Your task to perform on an android device: Go to wifi settings Image 0: 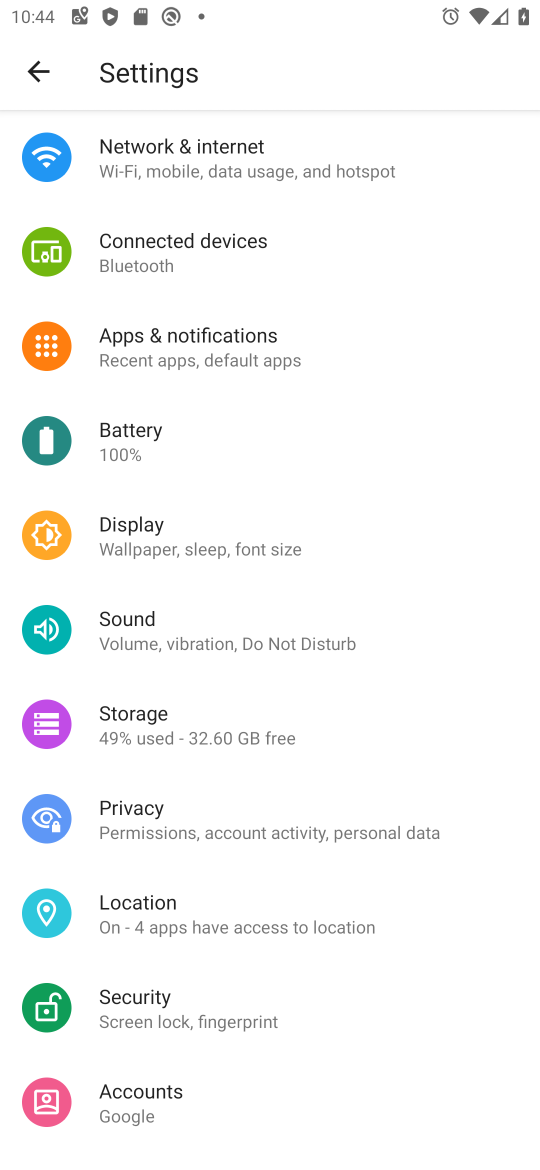
Step 0: click (165, 145)
Your task to perform on an android device: Go to wifi settings Image 1: 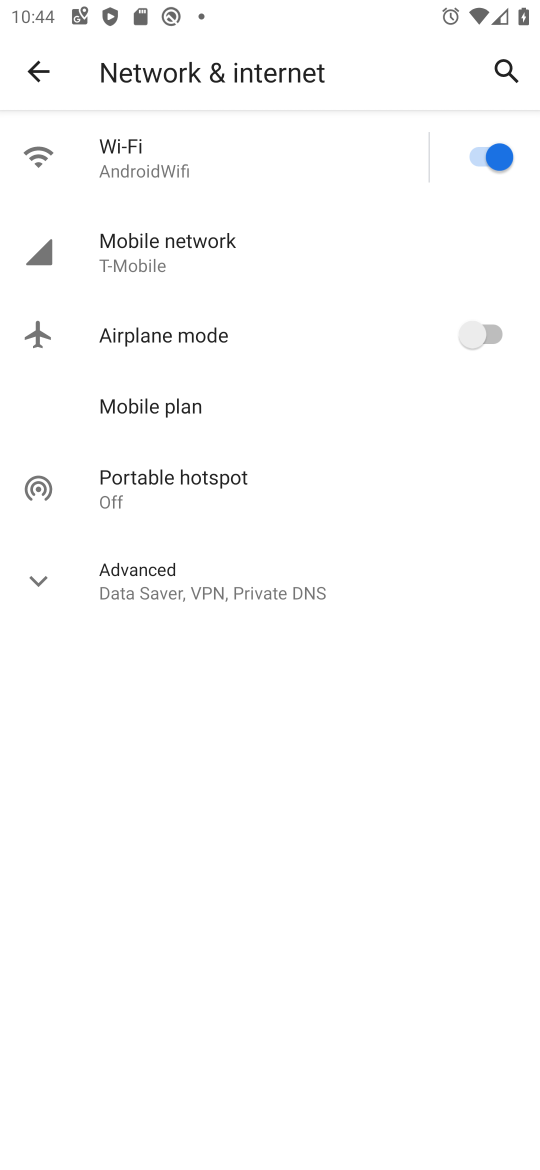
Step 1: click (139, 150)
Your task to perform on an android device: Go to wifi settings Image 2: 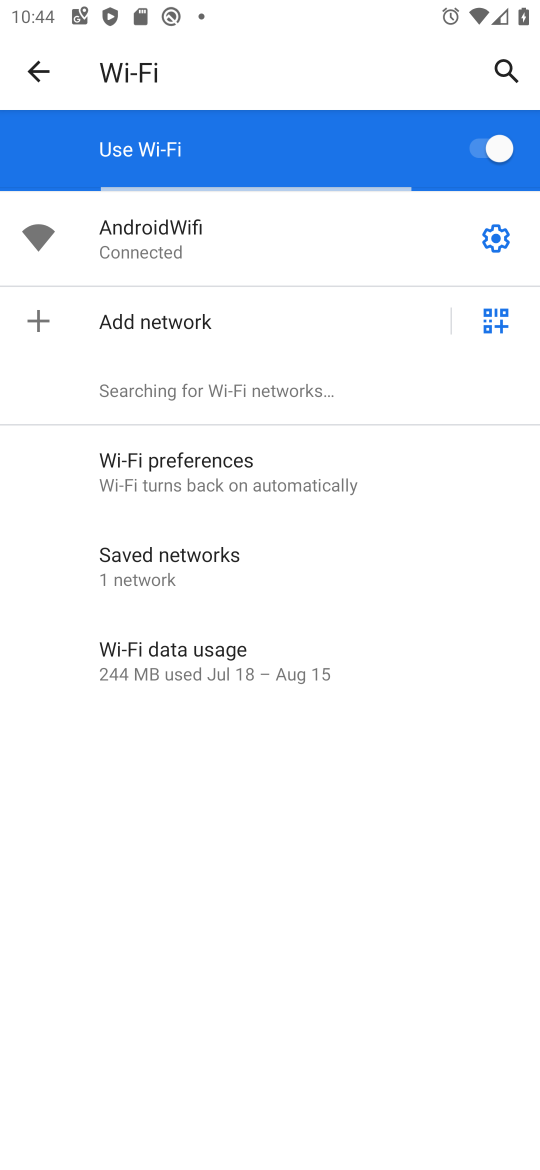
Step 2: task complete